Your task to perform on an android device: Go to location settings Image 0: 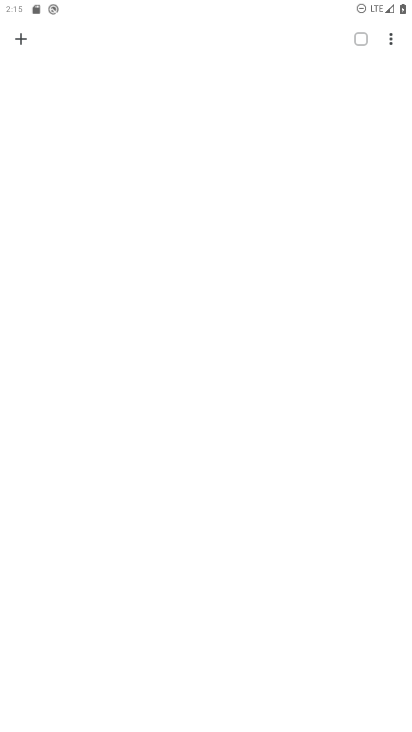
Step 0: press home button
Your task to perform on an android device: Go to location settings Image 1: 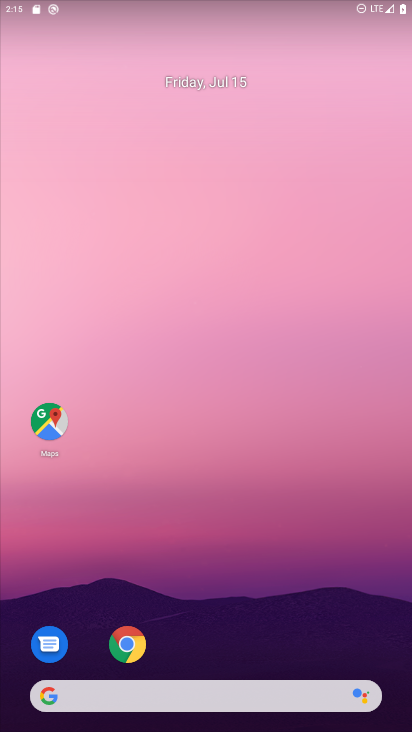
Step 1: drag from (21, 583) to (272, 9)
Your task to perform on an android device: Go to location settings Image 2: 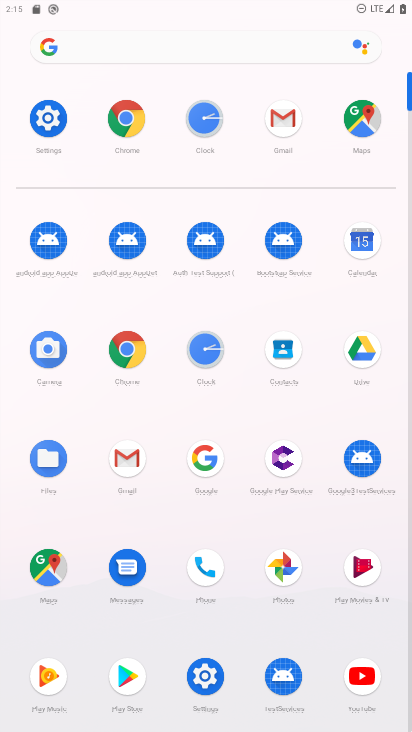
Step 2: click (202, 699)
Your task to perform on an android device: Go to location settings Image 3: 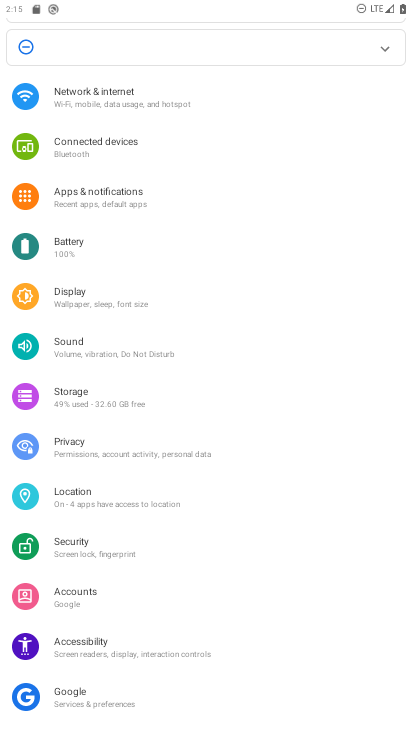
Step 3: click (127, 500)
Your task to perform on an android device: Go to location settings Image 4: 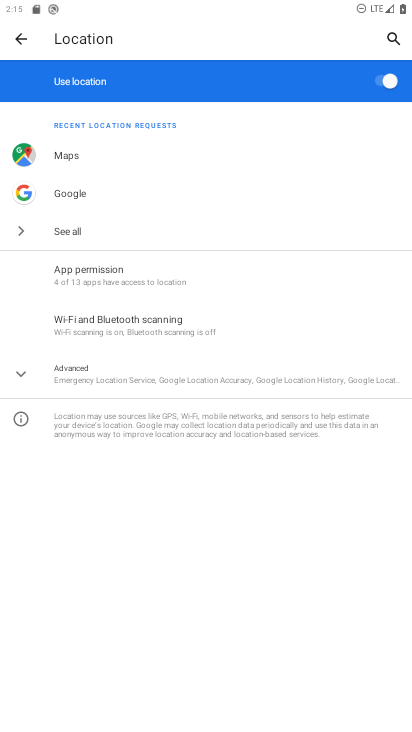
Step 4: task complete